Your task to perform on an android device: snooze an email in the gmail app Image 0: 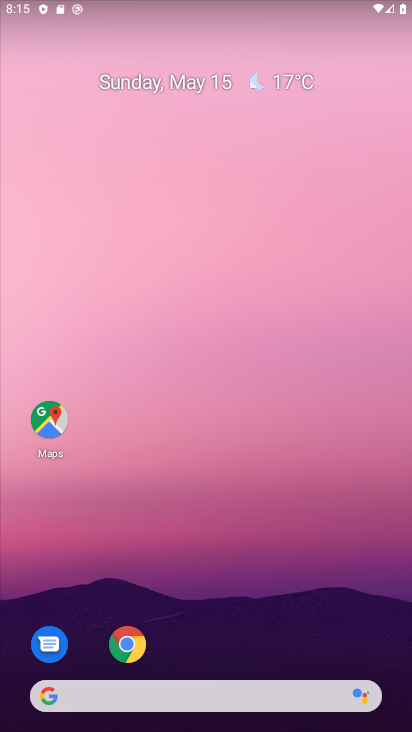
Step 0: drag from (252, 713) to (193, 104)
Your task to perform on an android device: snooze an email in the gmail app Image 1: 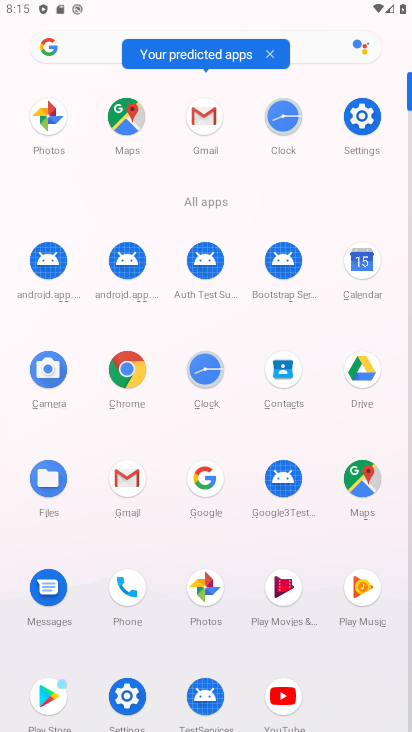
Step 1: click (124, 488)
Your task to perform on an android device: snooze an email in the gmail app Image 2: 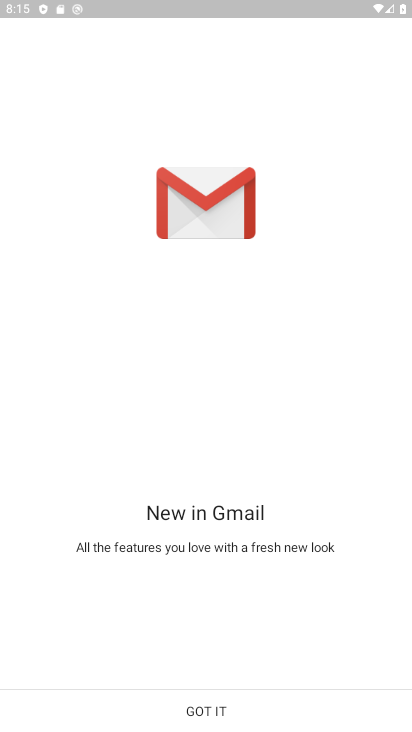
Step 2: click (240, 715)
Your task to perform on an android device: snooze an email in the gmail app Image 3: 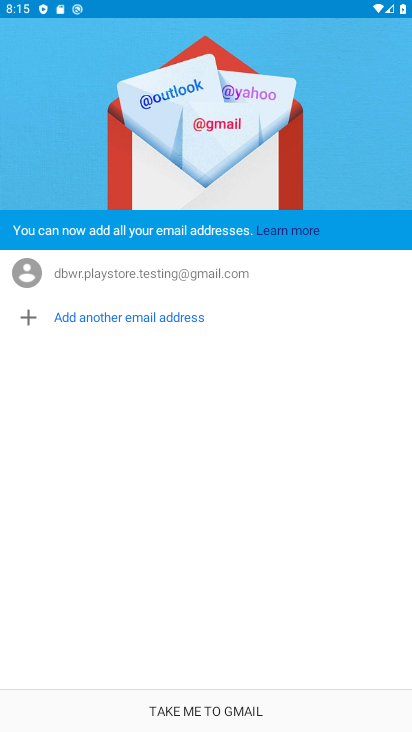
Step 3: click (235, 708)
Your task to perform on an android device: snooze an email in the gmail app Image 4: 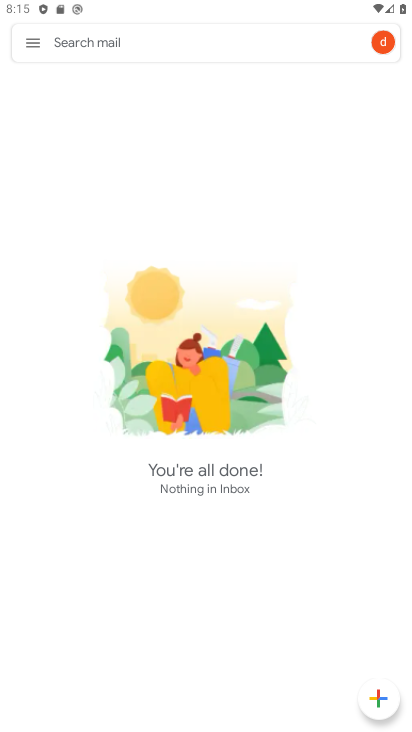
Step 4: click (35, 45)
Your task to perform on an android device: snooze an email in the gmail app Image 5: 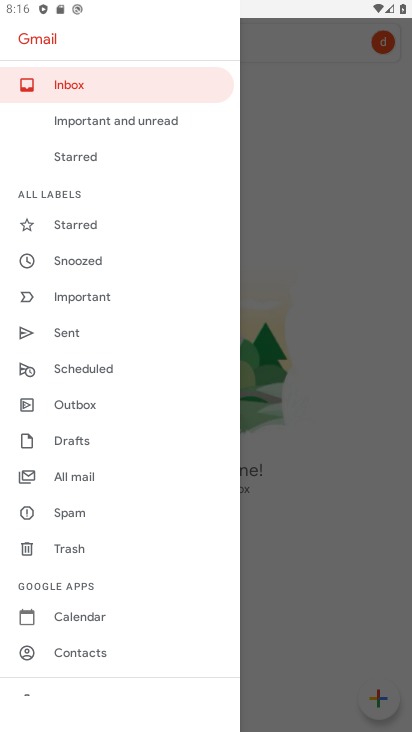
Step 5: click (96, 263)
Your task to perform on an android device: snooze an email in the gmail app Image 6: 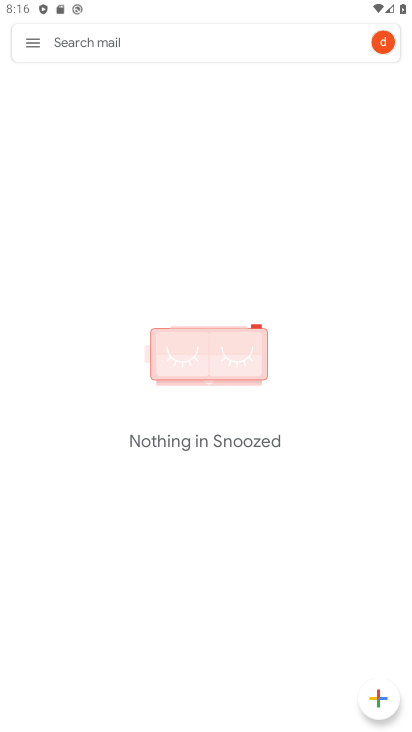
Step 6: task complete